Your task to perform on an android device: make emails show in primary in the gmail app Image 0: 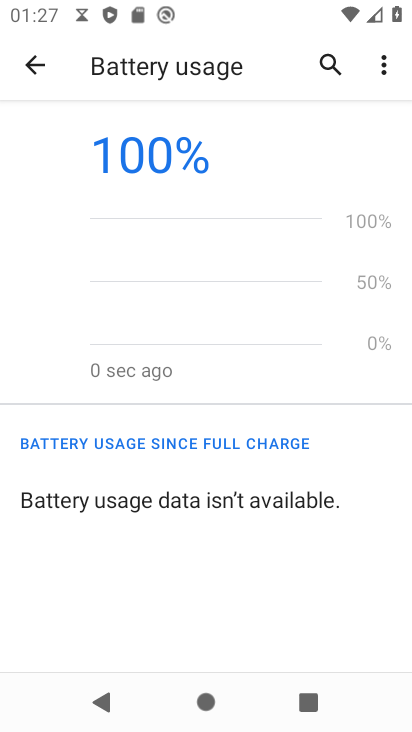
Step 0: press home button
Your task to perform on an android device: make emails show in primary in the gmail app Image 1: 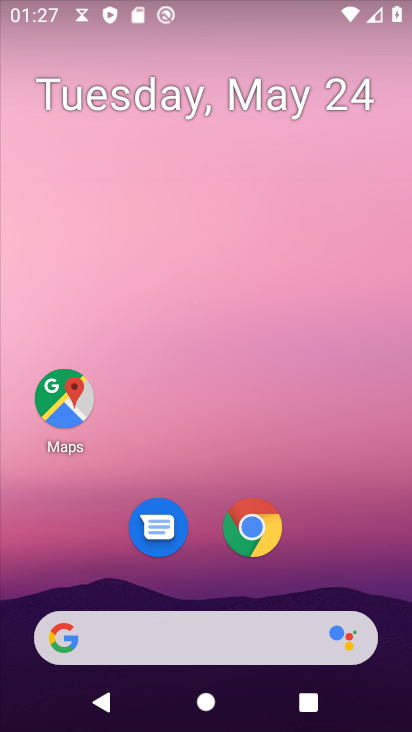
Step 1: drag from (202, 635) to (337, 115)
Your task to perform on an android device: make emails show in primary in the gmail app Image 2: 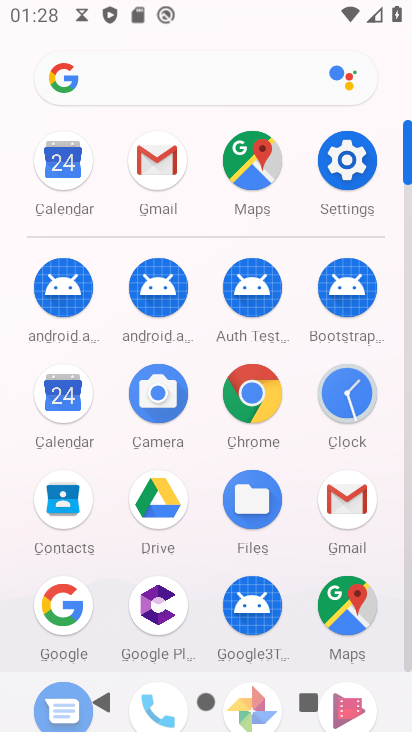
Step 2: click (158, 166)
Your task to perform on an android device: make emails show in primary in the gmail app Image 3: 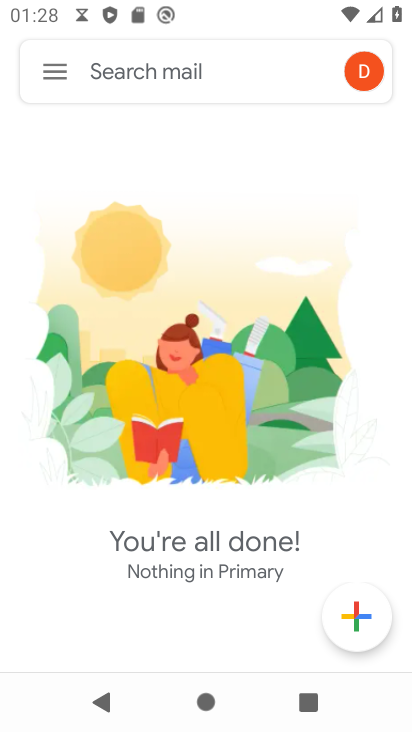
Step 3: click (47, 76)
Your task to perform on an android device: make emails show in primary in the gmail app Image 4: 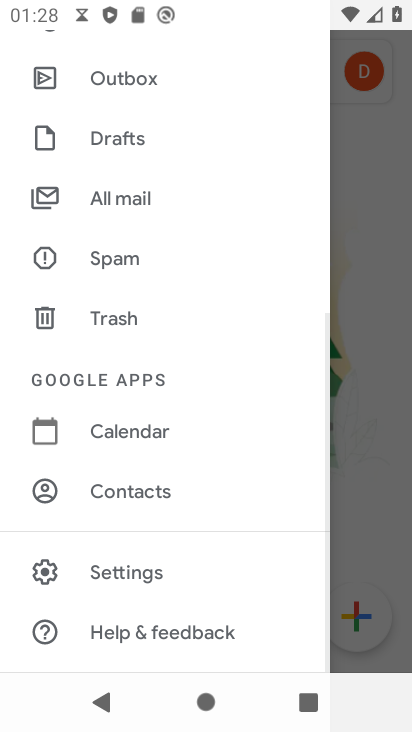
Step 4: click (145, 576)
Your task to perform on an android device: make emails show in primary in the gmail app Image 5: 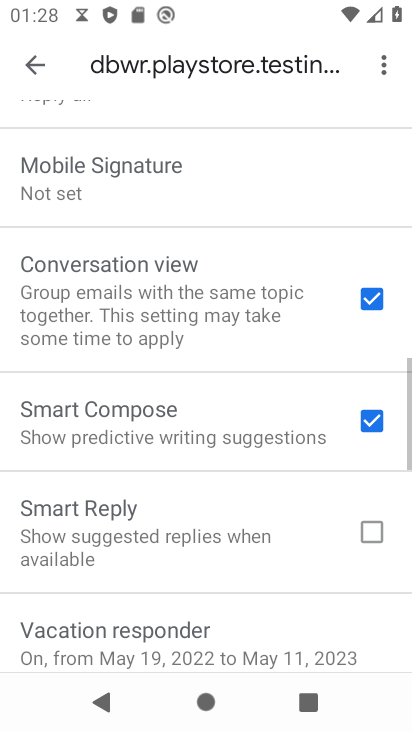
Step 5: drag from (282, 154) to (238, 626)
Your task to perform on an android device: make emails show in primary in the gmail app Image 6: 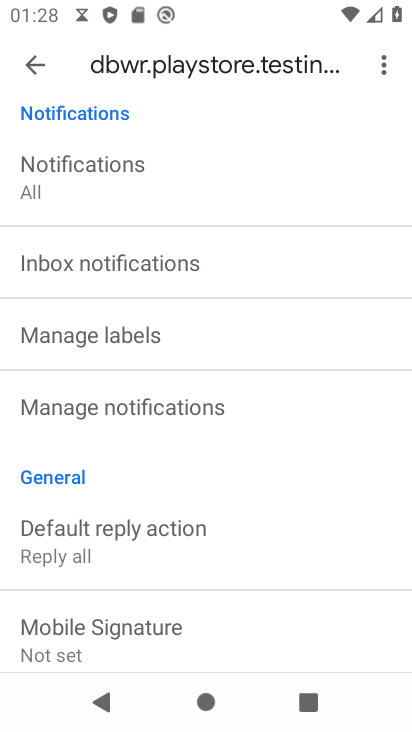
Step 6: drag from (253, 183) to (193, 642)
Your task to perform on an android device: make emails show in primary in the gmail app Image 7: 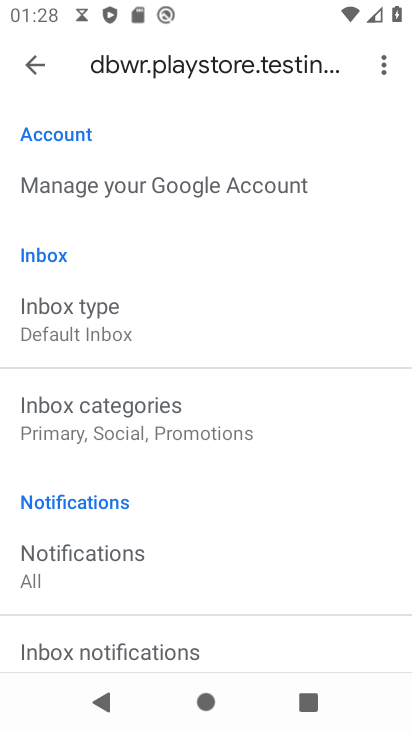
Step 7: click (136, 410)
Your task to perform on an android device: make emails show in primary in the gmail app Image 8: 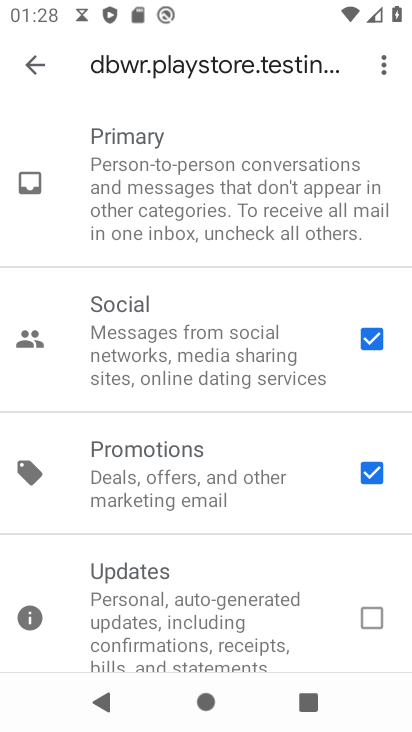
Step 8: click (367, 324)
Your task to perform on an android device: make emails show in primary in the gmail app Image 9: 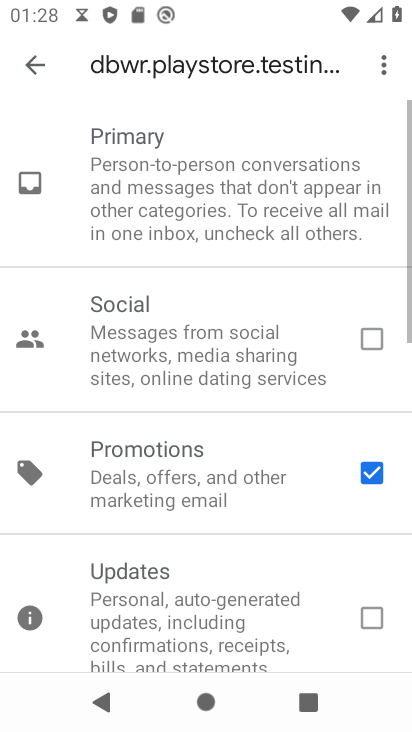
Step 9: click (367, 479)
Your task to perform on an android device: make emails show in primary in the gmail app Image 10: 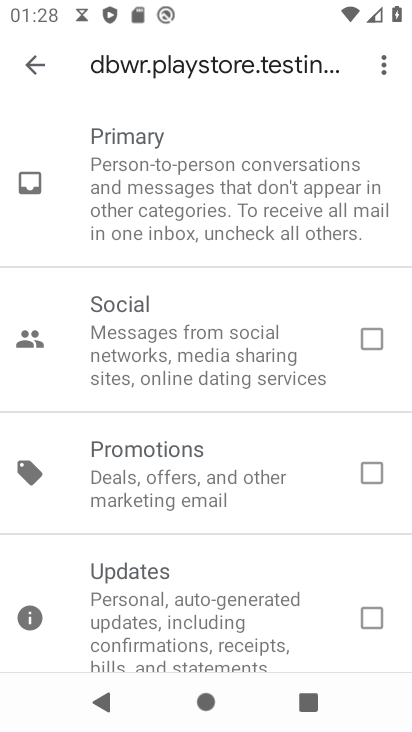
Step 10: click (30, 54)
Your task to perform on an android device: make emails show in primary in the gmail app Image 11: 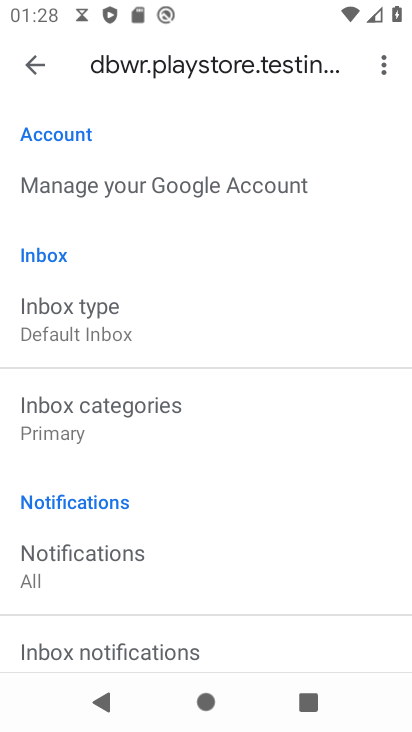
Step 11: task complete